Your task to perform on an android device: Go to notification settings Image 0: 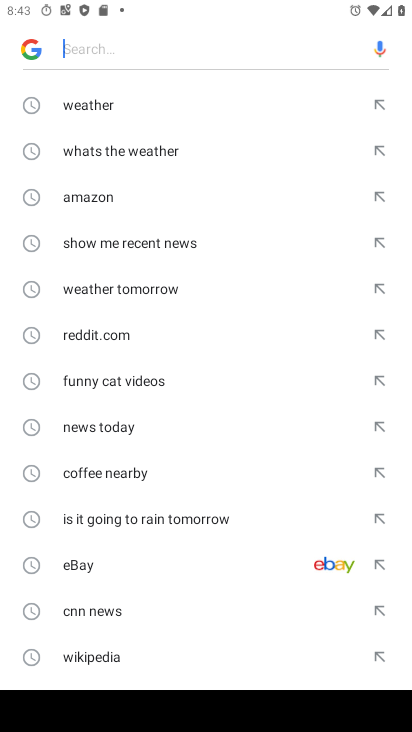
Step 0: press home button
Your task to perform on an android device: Go to notification settings Image 1: 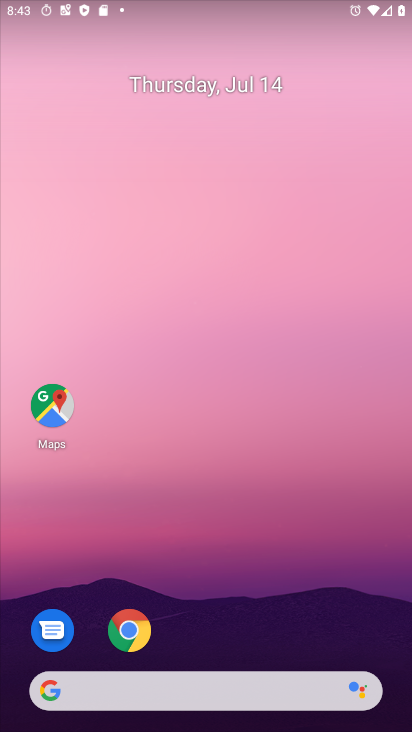
Step 1: drag from (249, 693) to (187, 334)
Your task to perform on an android device: Go to notification settings Image 2: 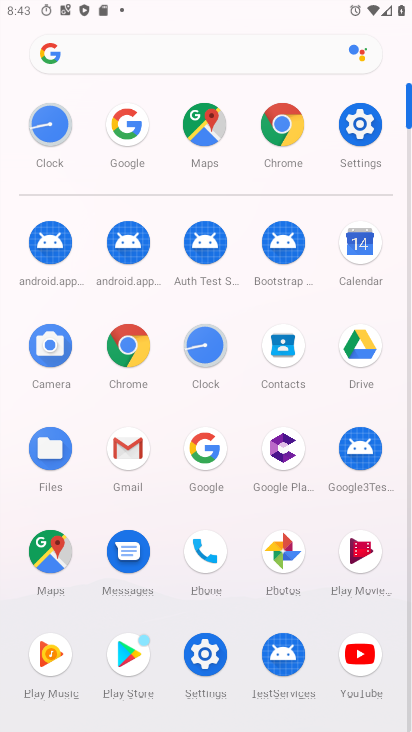
Step 2: click (360, 129)
Your task to perform on an android device: Go to notification settings Image 3: 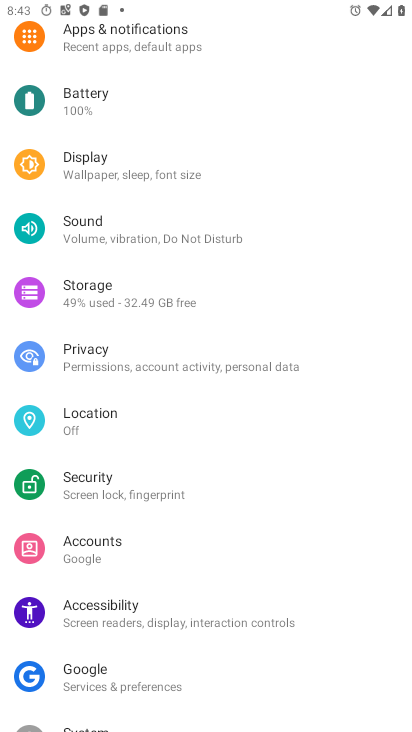
Step 3: click (122, 39)
Your task to perform on an android device: Go to notification settings Image 4: 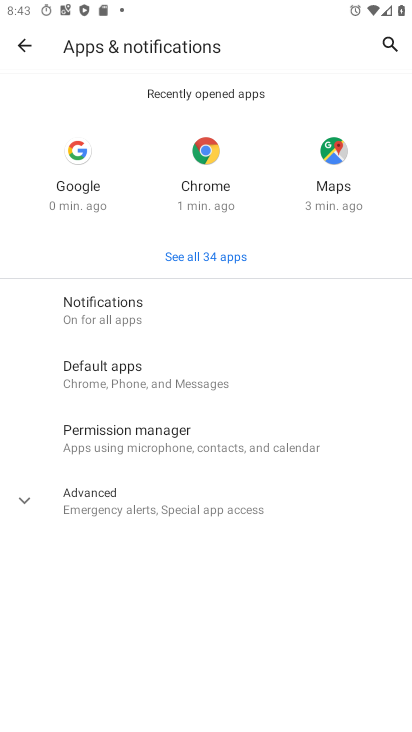
Step 4: click (93, 308)
Your task to perform on an android device: Go to notification settings Image 5: 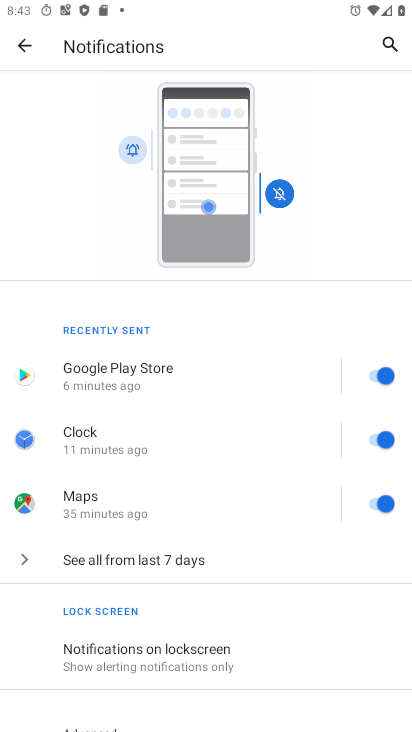
Step 5: task complete